Your task to perform on an android device: turn on showing notifications on the lock screen Image 0: 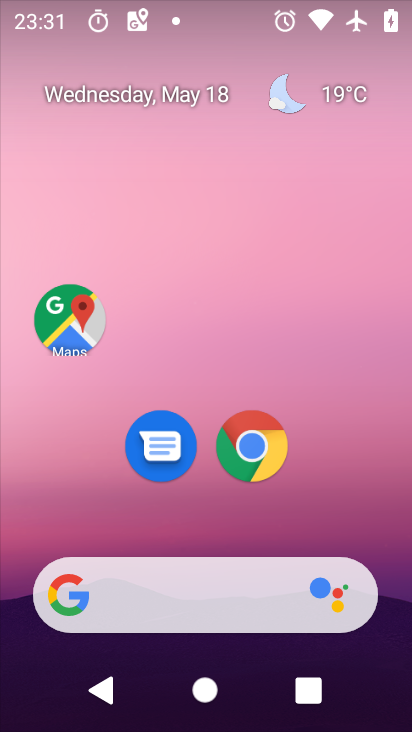
Step 0: press home button
Your task to perform on an android device: turn on showing notifications on the lock screen Image 1: 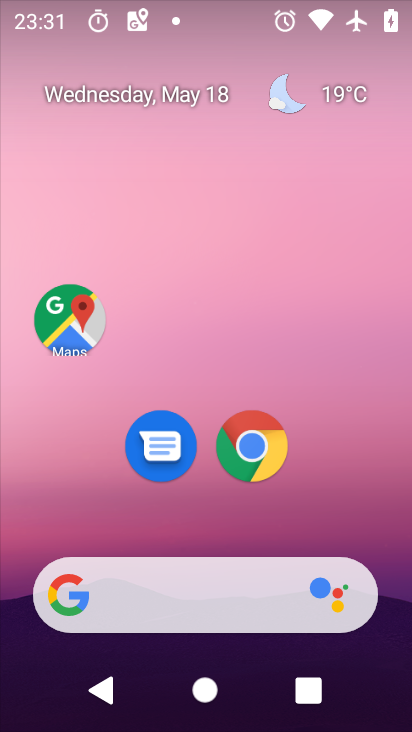
Step 1: drag from (179, 588) to (284, 108)
Your task to perform on an android device: turn on showing notifications on the lock screen Image 2: 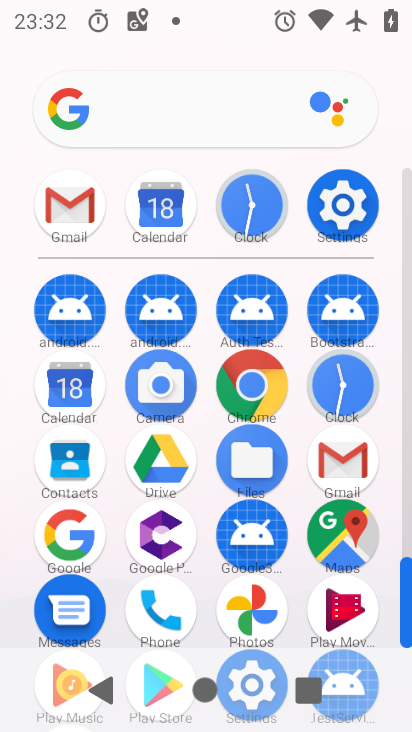
Step 2: click (339, 214)
Your task to perform on an android device: turn on showing notifications on the lock screen Image 3: 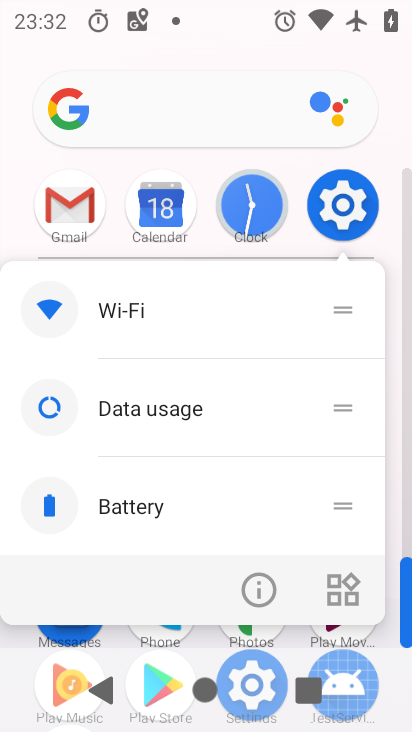
Step 3: click (339, 210)
Your task to perform on an android device: turn on showing notifications on the lock screen Image 4: 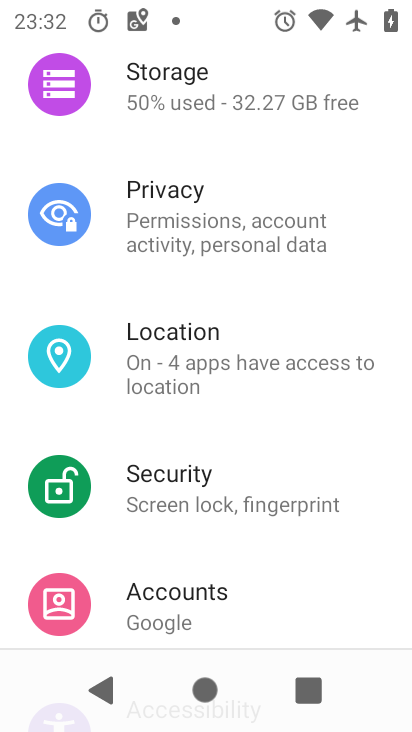
Step 4: drag from (288, 154) to (260, 586)
Your task to perform on an android device: turn on showing notifications on the lock screen Image 5: 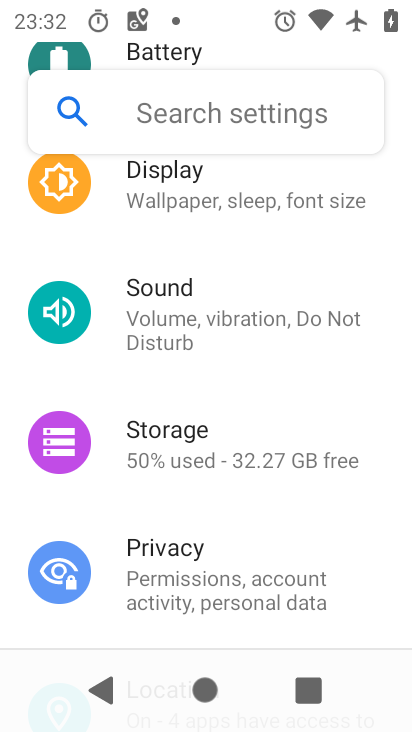
Step 5: drag from (285, 276) to (223, 597)
Your task to perform on an android device: turn on showing notifications on the lock screen Image 6: 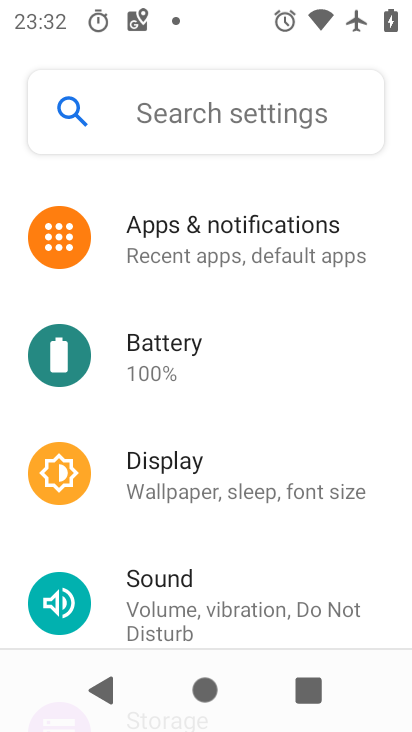
Step 6: click (250, 237)
Your task to perform on an android device: turn on showing notifications on the lock screen Image 7: 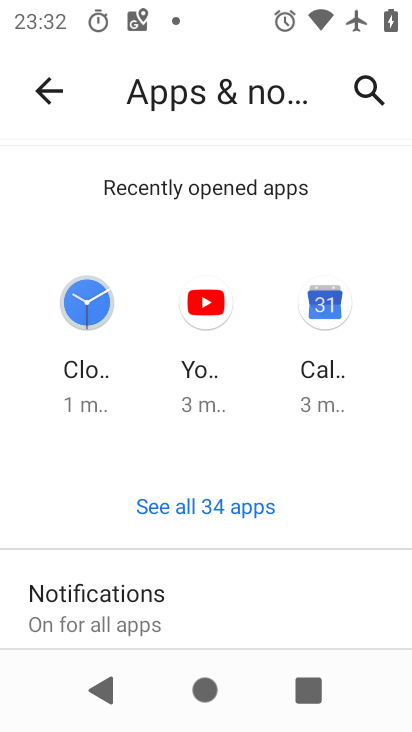
Step 7: drag from (192, 603) to (320, 306)
Your task to perform on an android device: turn on showing notifications on the lock screen Image 8: 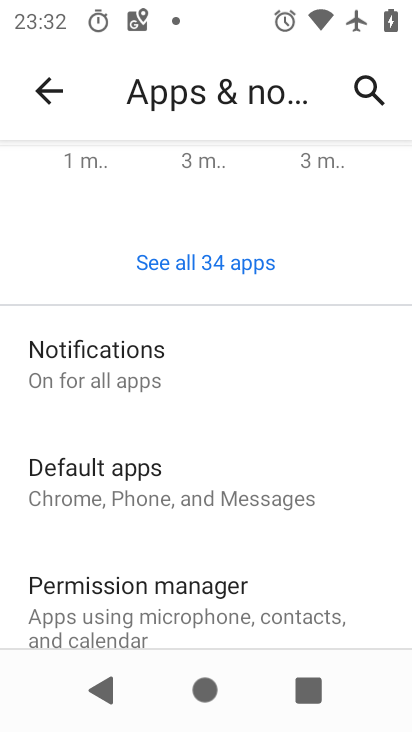
Step 8: click (139, 348)
Your task to perform on an android device: turn on showing notifications on the lock screen Image 9: 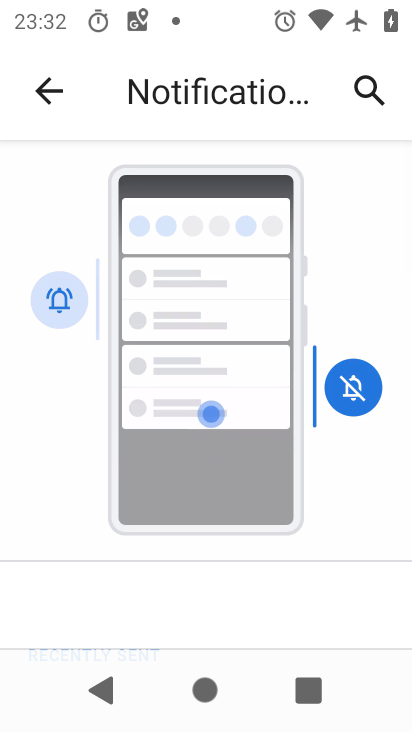
Step 9: drag from (220, 601) to (333, 29)
Your task to perform on an android device: turn on showing notifications on the lock screen Image 10: 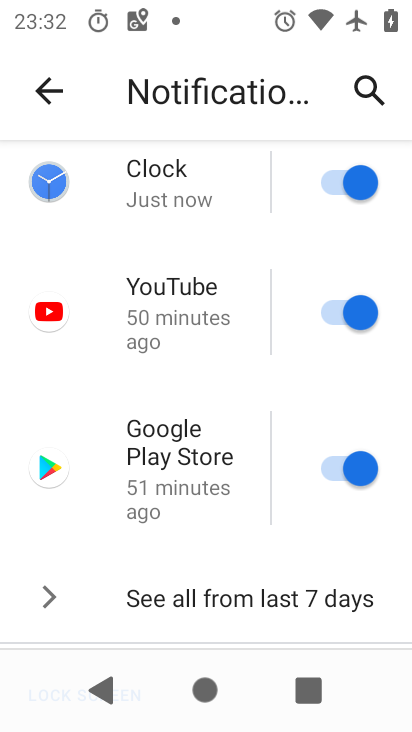
Step 10: drag from (207, 619) to (286, 94)
Your task to perform on an android device: turn on showing notifications on the lock screen Image 11: 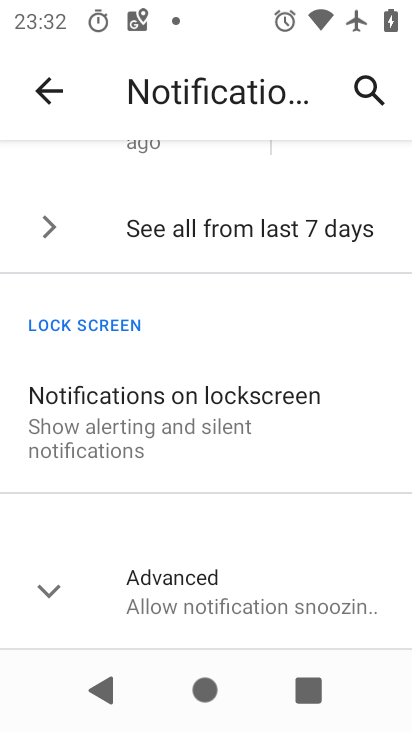
Step 11: click (219, 422)
Your task to perform on an android device: turn on showing notifications on the lock screen Image 12: 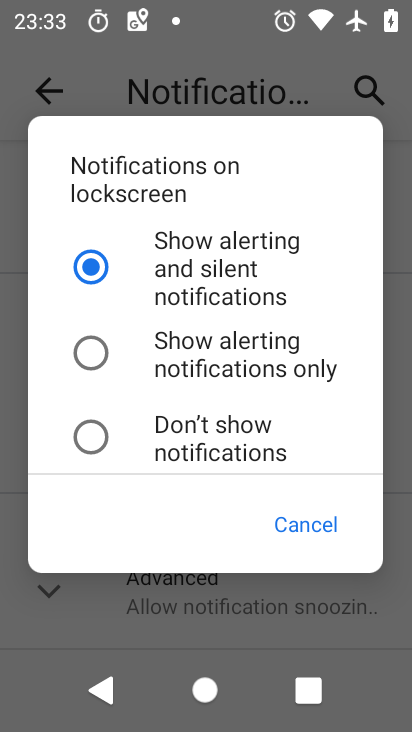
Step 12: task complete